Your task to perform on an android device: open a bookmark in the chrome app Image 0: 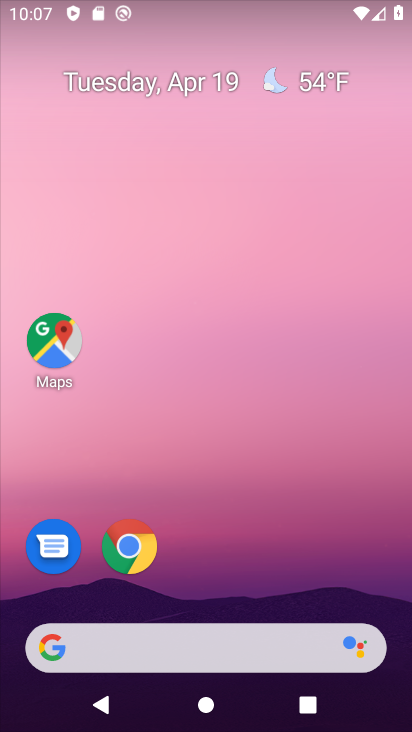
Step 0: click (137, 545)
Your task to perform on an android device: open a bookmark in the chrome app Image 1: 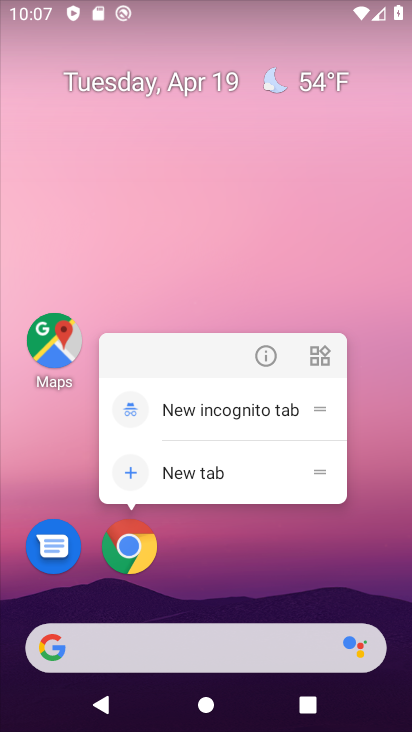
Step 1: click (137, 545)
Your task to perform on an android device: open a bookmark in the chrome app Image 2: 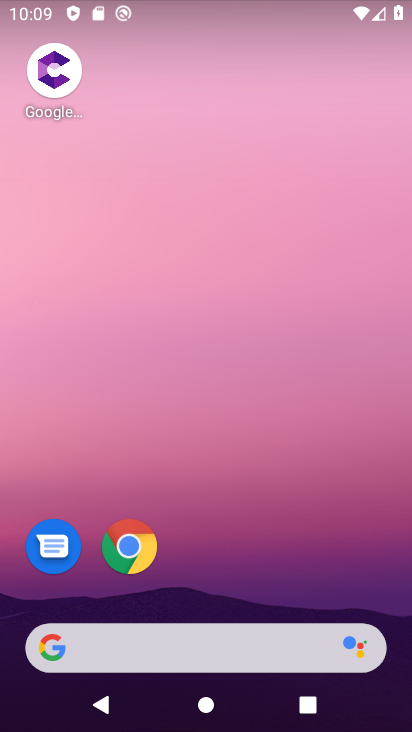
Step 2: click (130, 548)
Your task to perform on an android device: open a bookmark in the chrome app Image 3: 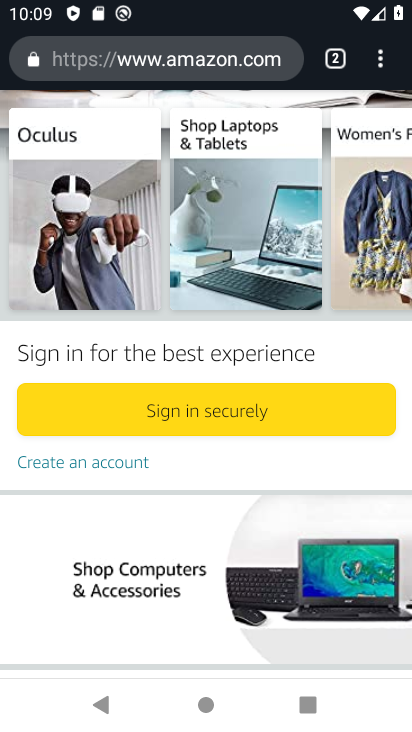
Step 3: click (372, 53)
Your task to perform on an android device: open a bookmark in the chrome app Image 4: 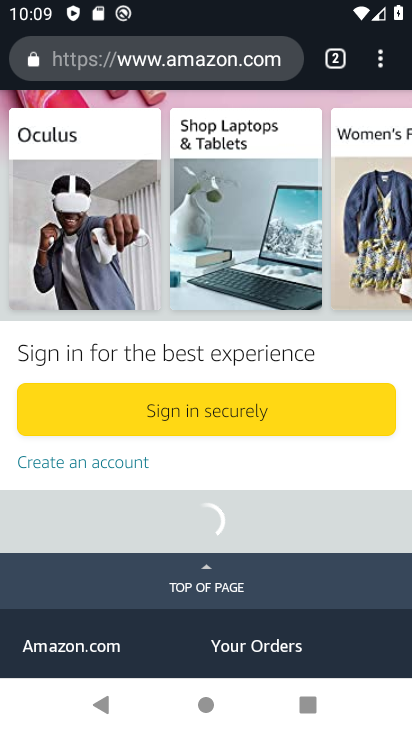
Step 4: click (377, 63)
Your task to perform on an android device: open a bookmark in the chrome app Image 5: 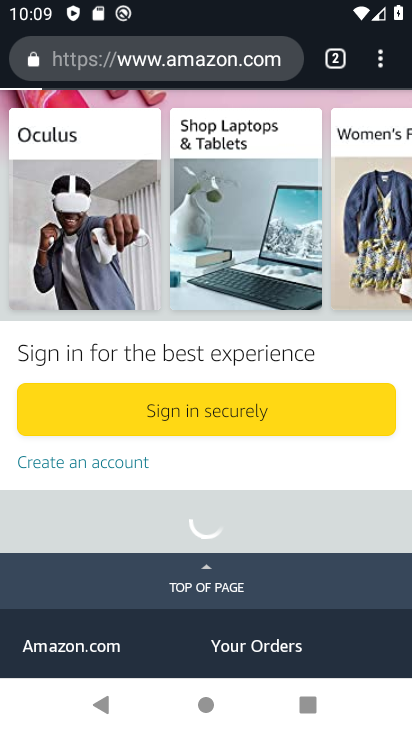
Step 5: click (202, 217)
Your task to perform on an android device: open a bookmark in the chrome app Image 6: 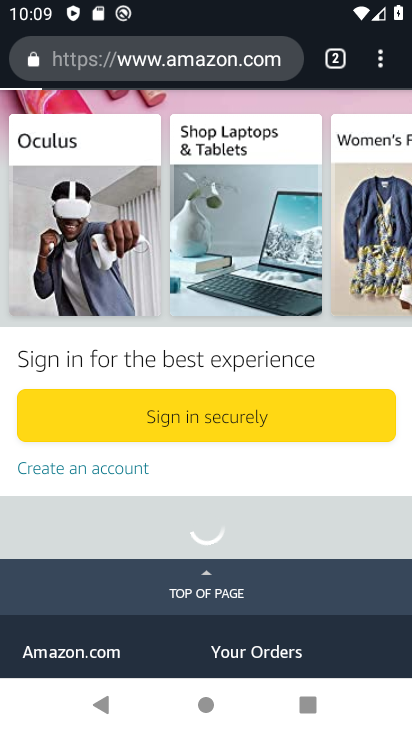
Step 6: click (393, 41)
Your task to perform on an android device: open a bookmark in the chrome app Image 7: 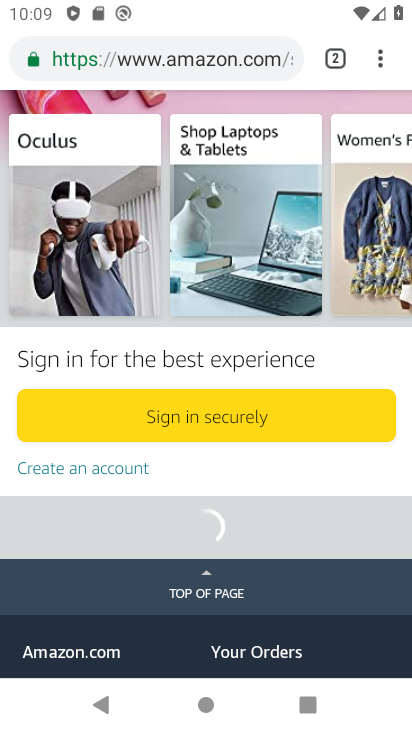
Step 7: click (379, 61)
Your task to perform on an android device: open a bookmark in the chrome app Image 8: 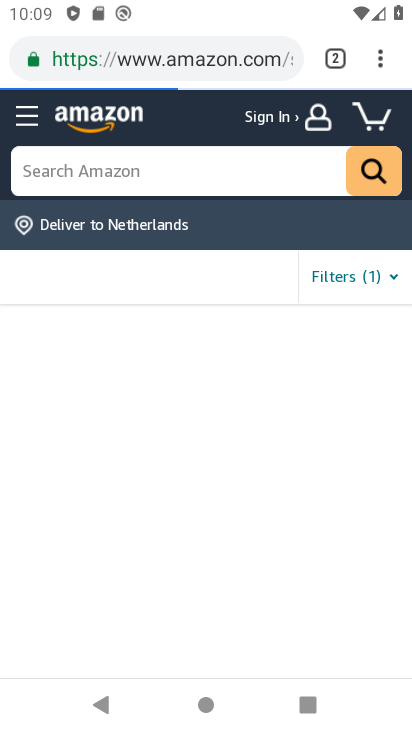
Step 8: drag from (374, 57) to (173, 226)
Your task to perform on an android device: open a bookmark in the chrome app Image 9: 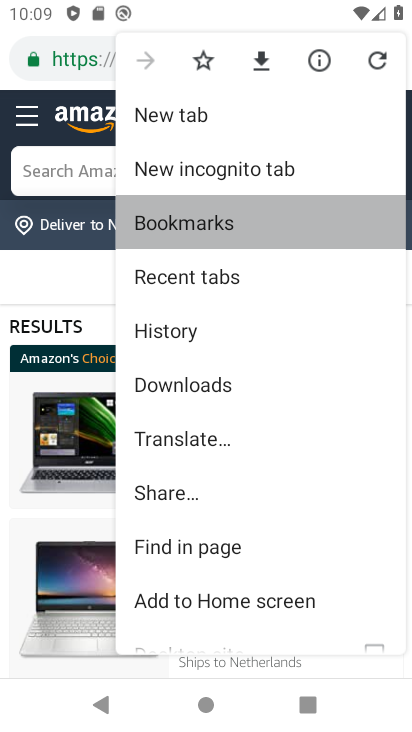
Step 9: click (173, 226)
Your task to perform on an android device: open a bookmark in the chrome app Image 10: 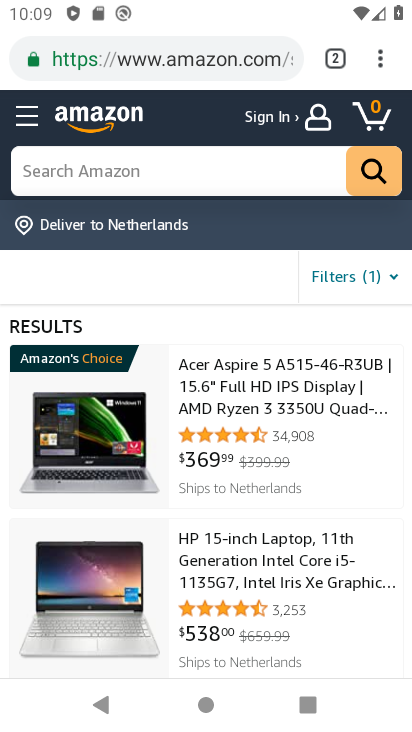
Step 10: click (187, 195)
Your task to perform on an android device: open a bookmark in the chrome app Image 11: 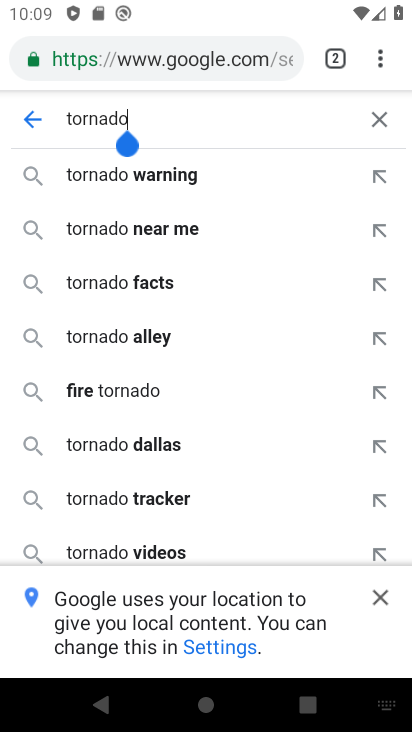
Step 11: task complete